Your task to perform on an android device: turn on showing notifications on the lock screen Image 0: 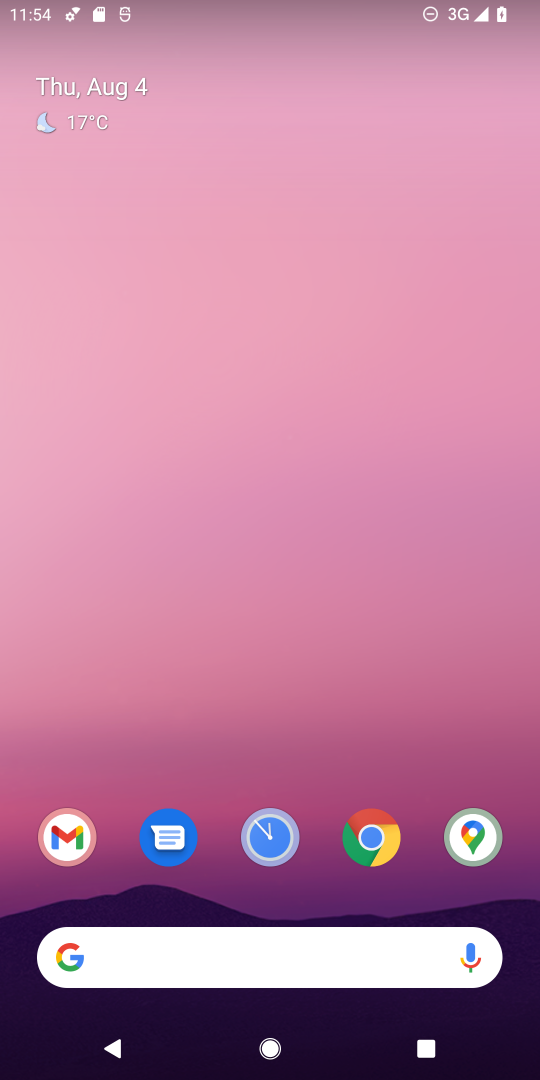
Step 0: drag from (437, 868) to (31, 10)
Your task to perform on an android device: turn on showing notifications on the lock screen Image 1: 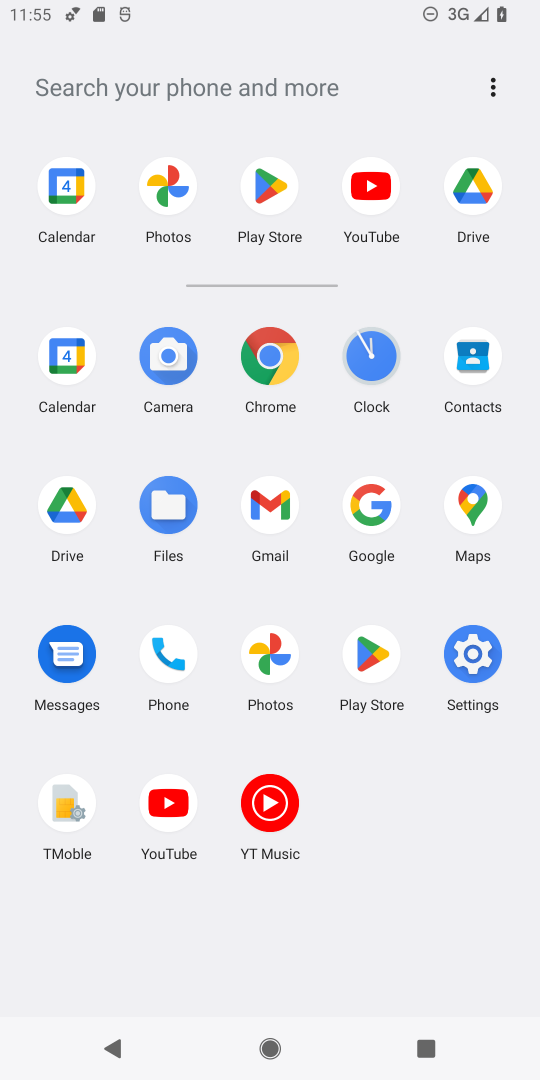
Step 1: click (469, 665)
Your task to perform on an android device: turn on showing notifications on the lock screen Image 2: 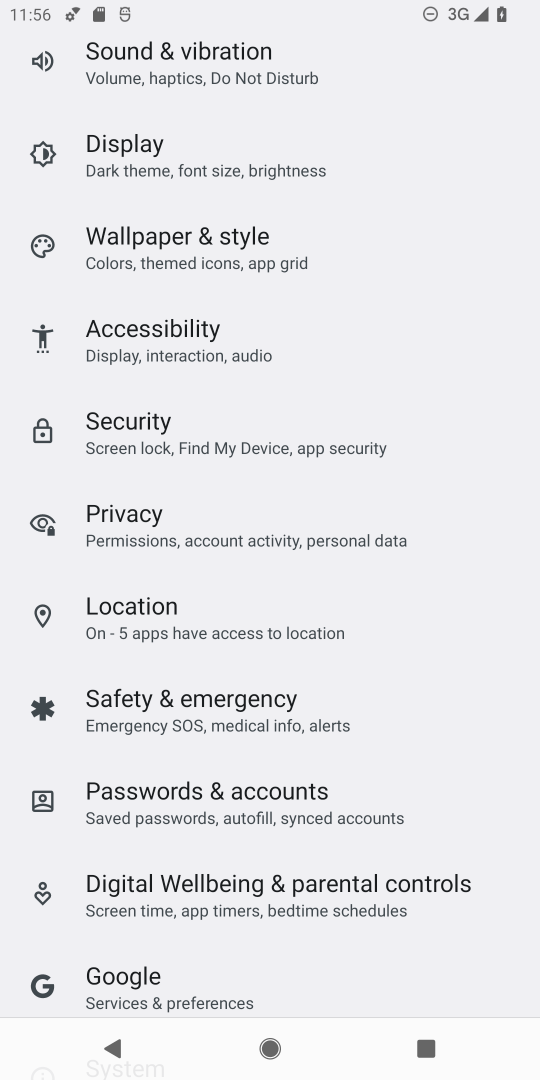
Step 2: drag from (159, 228) to (232, 911)
Your task to perform on an android device: turn on showing notifications on the lock screen Image 3: 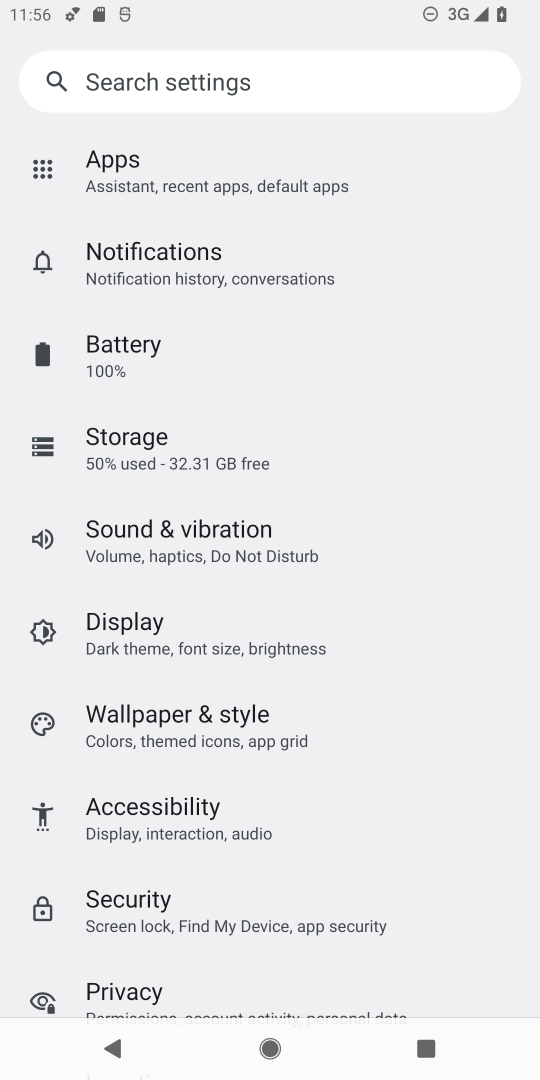
Step 3: click (166, 256)
Your task to perform on an android device: turn on showing notifications on the lock screen Image 4: 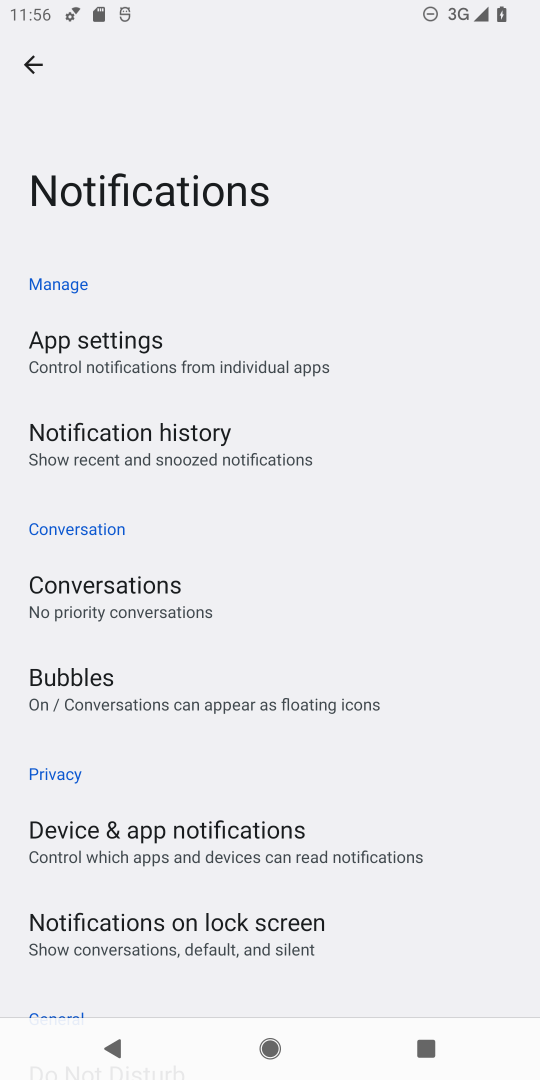
Step 4: click (269, 947)
Your task to perform on an android device: turn on showing notifications on the lock screen Image 5: 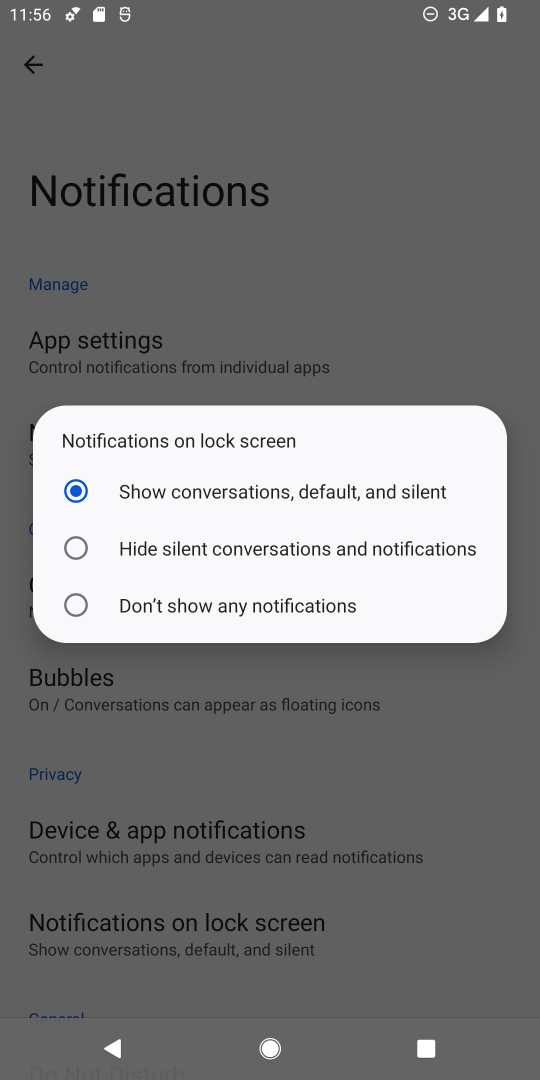
Step 5: task complete